Your task to perform on an android device: turn off location Image 0: 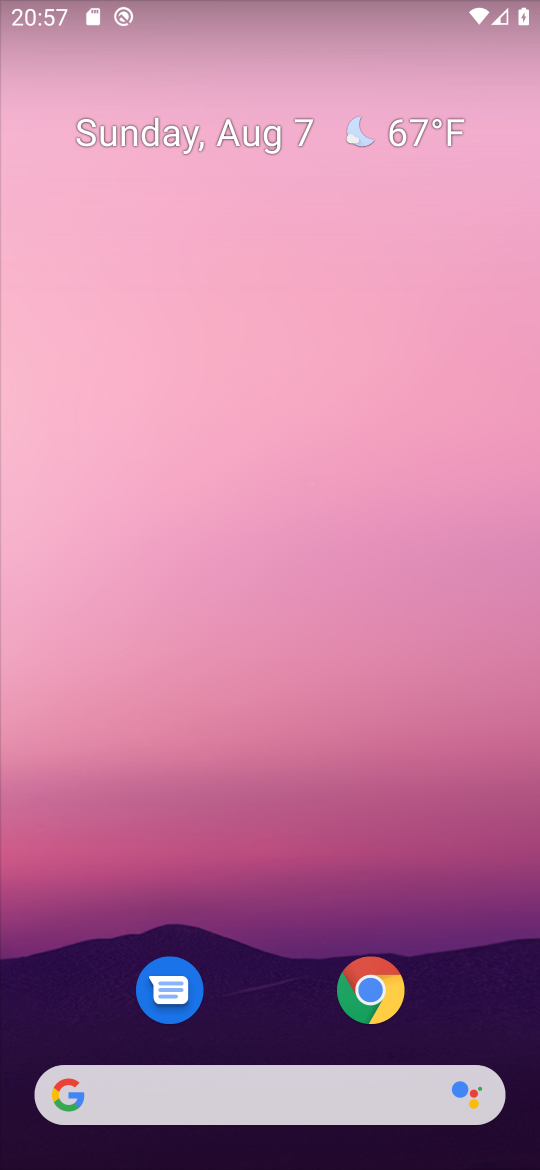
Step 0: drag from (287, 1001) to (249, 4)
Your task to perform on an android device: turn off location Image 1: 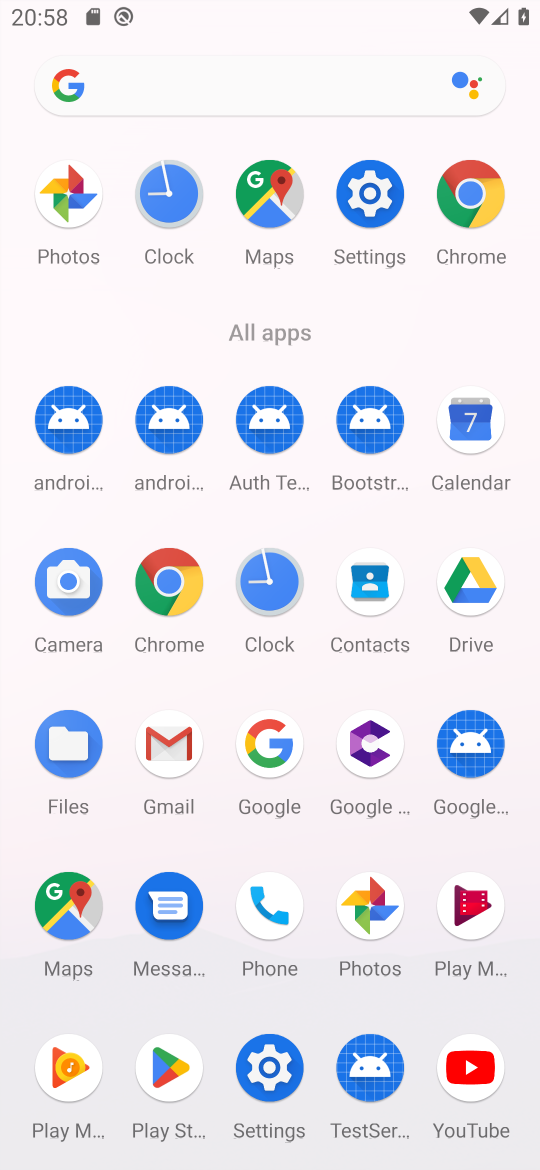
Step 1: click (373, 198)
Your task to perform on an android device: turn off location Image 2: 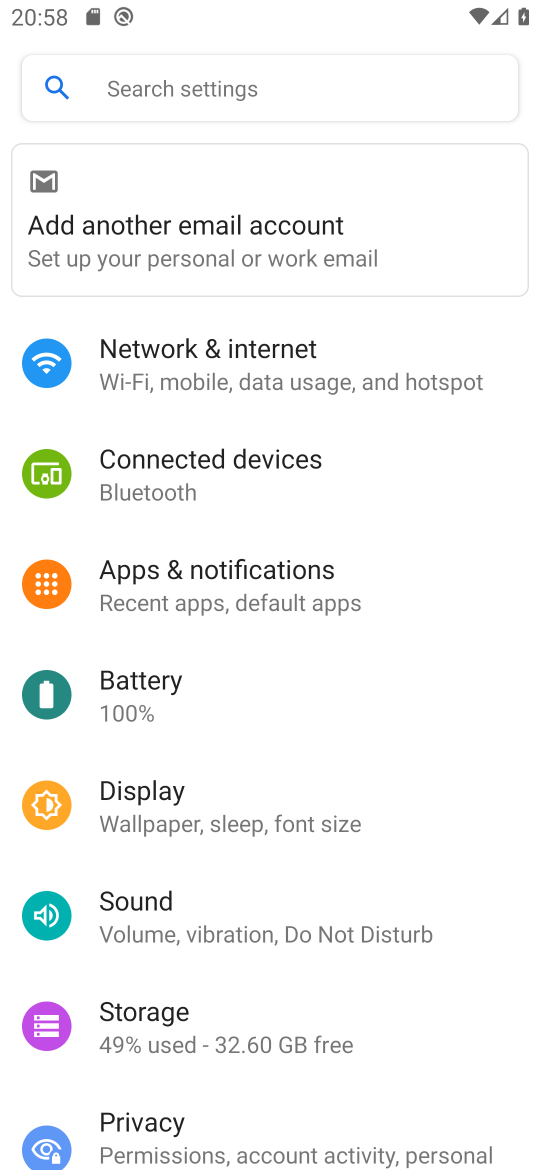
Step 2: drag from (303, 705) to (314, 4)
Your task to perform on an android device: turn off location Image 3: 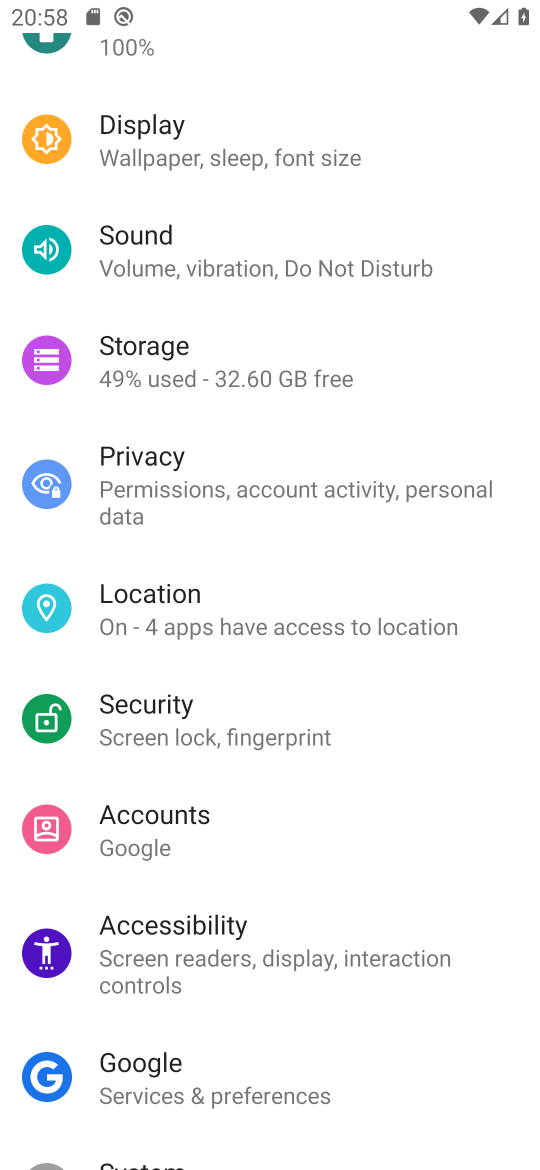
Step 3: click (266, 616)
Your task to perform on an android device: turn off location Image 4: 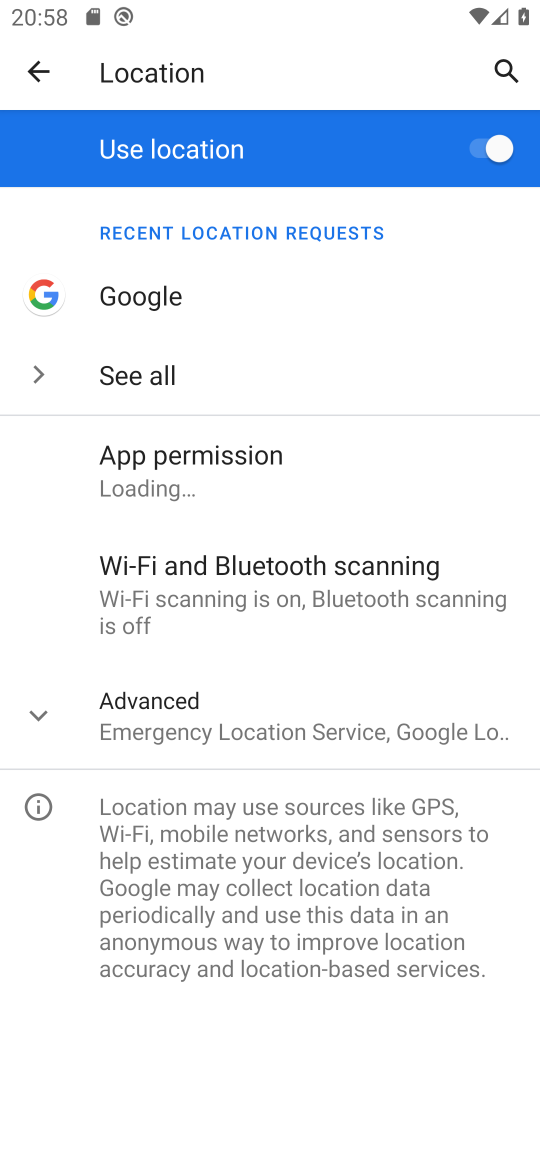
Step 4: click (477, 154)
Your task to perform on an android device: turn off location Image 5: 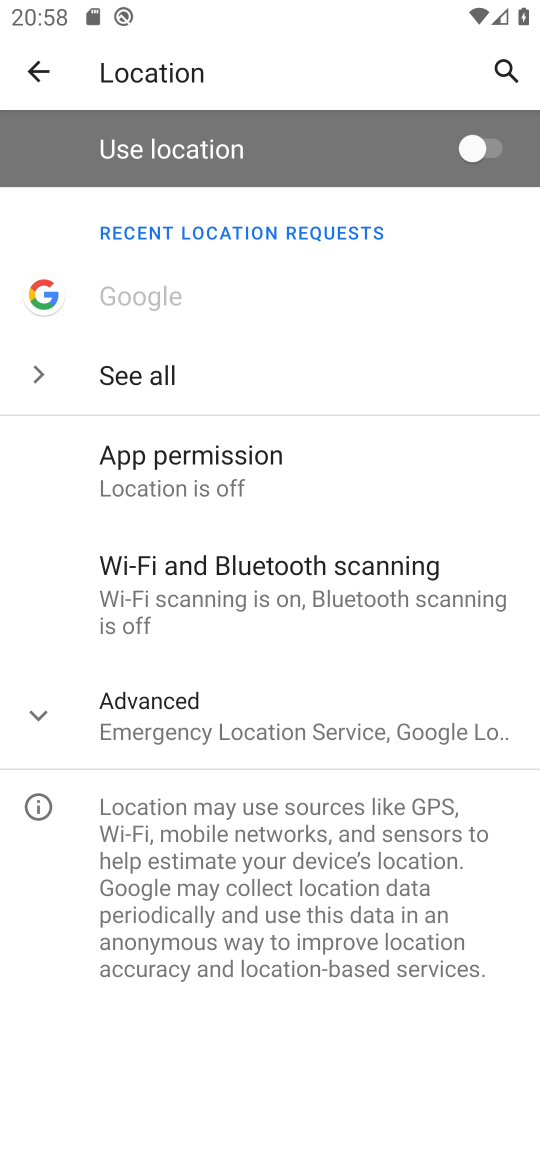
Step 5: task complete